Your task to perform on an android device: turn vacation reply on in the gmail app Image 0: 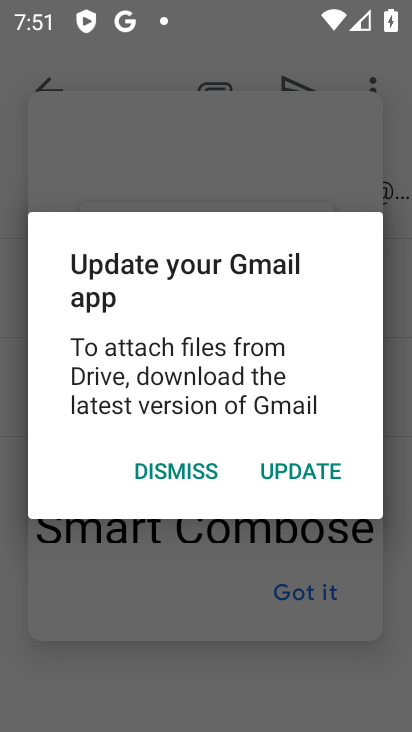
Step 0: press home button
Your task to perform on an android device: turn vacation reply on in the gmail app Image 1: 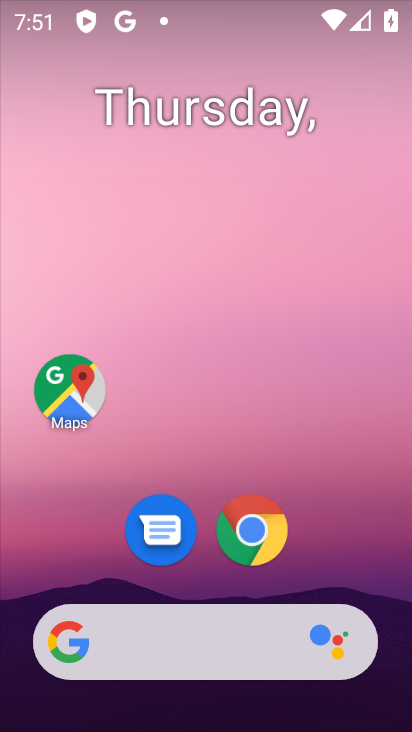
Step 1: drag from (250, 541) to (345, 245)
Your task to perform on an android device: turn vacation reply on in the gmail app Image 2: 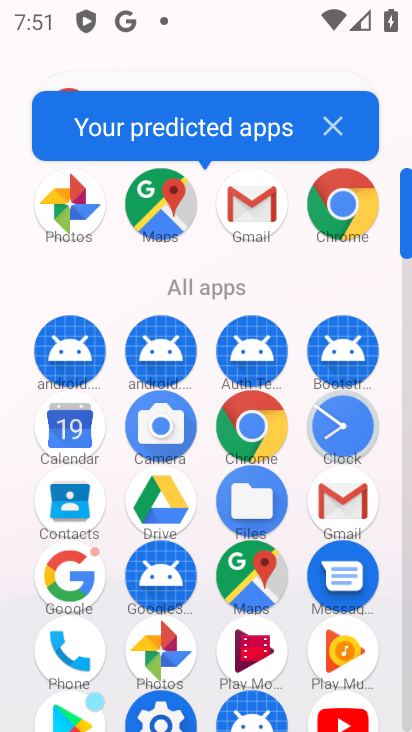
Step 2: click (239, 206)
Your task to perform on an android device: turn vacation reply on in the gmail app Image 3: 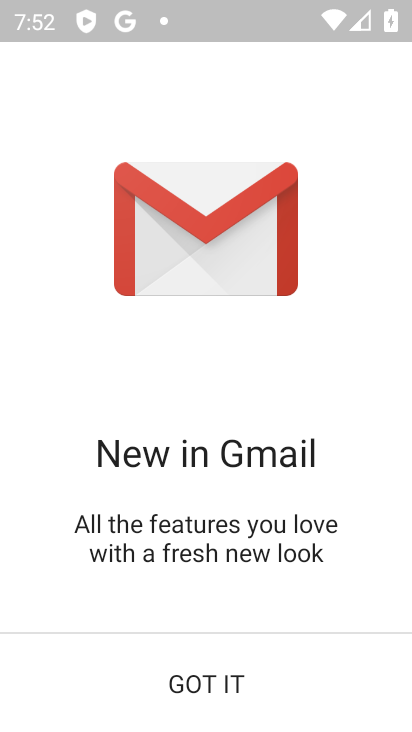
Step 3: click (202, 671)
Your task to perform on an android device: turn vacation reply on in the gmail app Image 4: 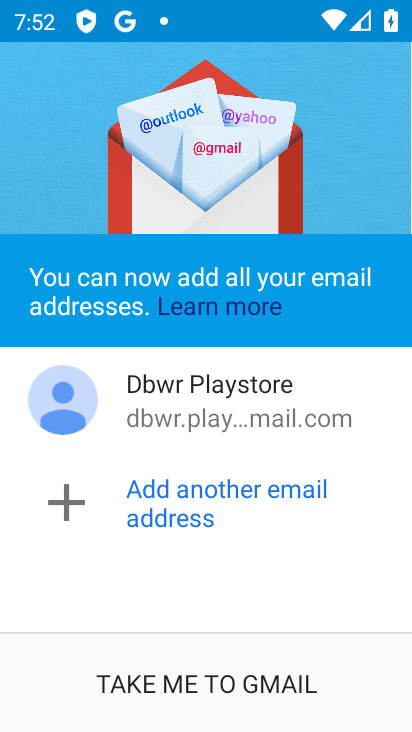
Step 4: click (202, 671)
Your task to perform on an android device: turn vacation reply on in the gmail app Image 5: 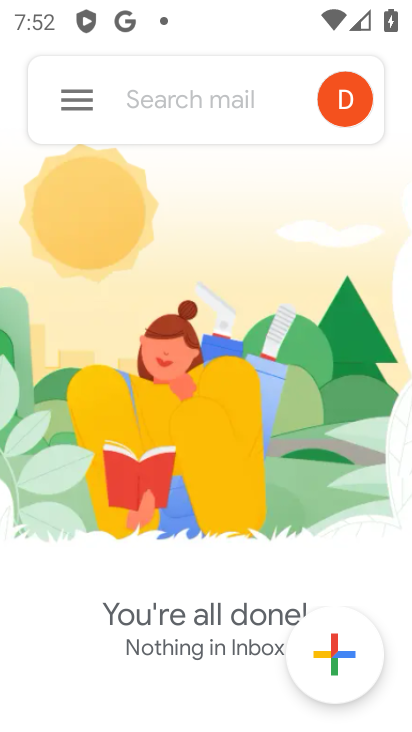
Step 5: click (76, 114)
Your task to perform on an android device: turn vacation reply on in the gmail app Image 6: 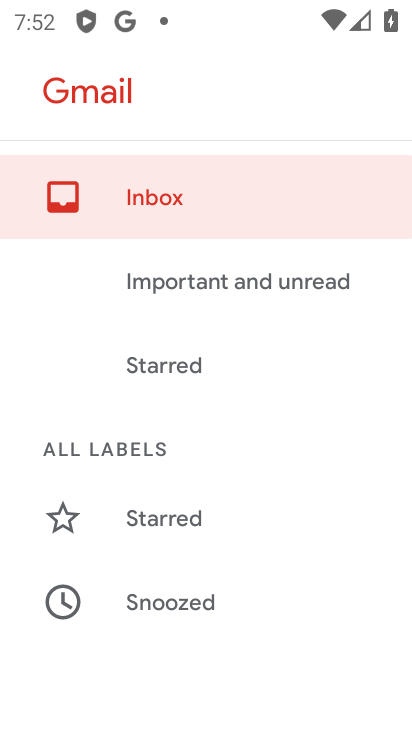
Step 6: drag from (228, 635) to (333, 227)
Your task to perform on an android device: turn vacation reply on in the gmail app Image 7: 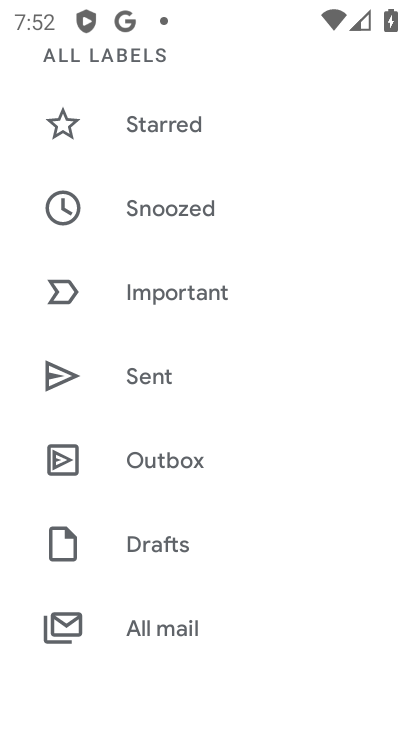
Step 7: drag from (266, 553) to (396, 111)
Your task to perform on an android device: turn vacation reply on in the gmail app Image 8: 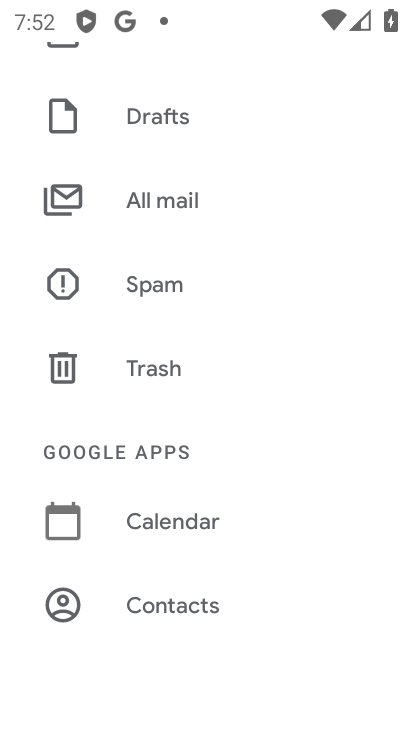
Step 8: drag from (237, 623) to (402, 179)
Your task to perform on an android device: turn vacation reply on in the gmail app Image 9: 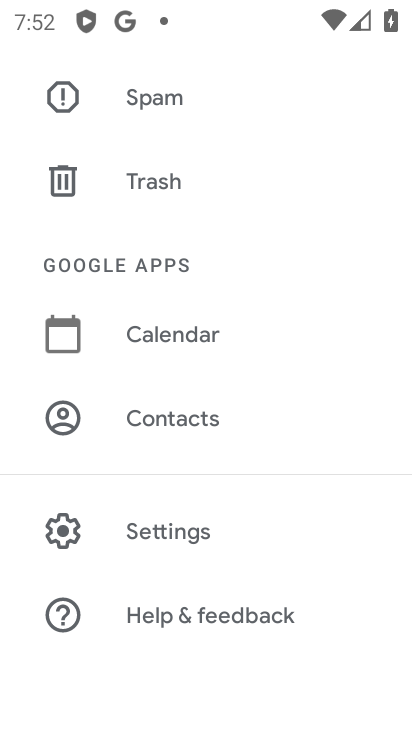
Step 9: click (161, 533)
Your task to perform on an android device: turn vacation reply on in the gmail app Image 10: 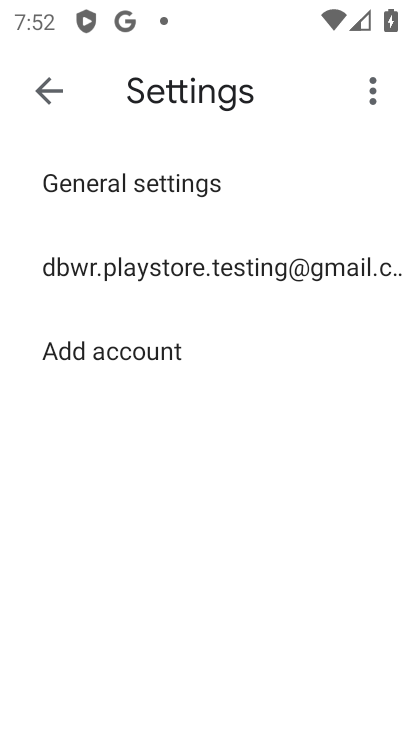
Step 10: click (248, 273)
Your task to perform on an android device: turn vacation reply on in the gmail app Image 11: 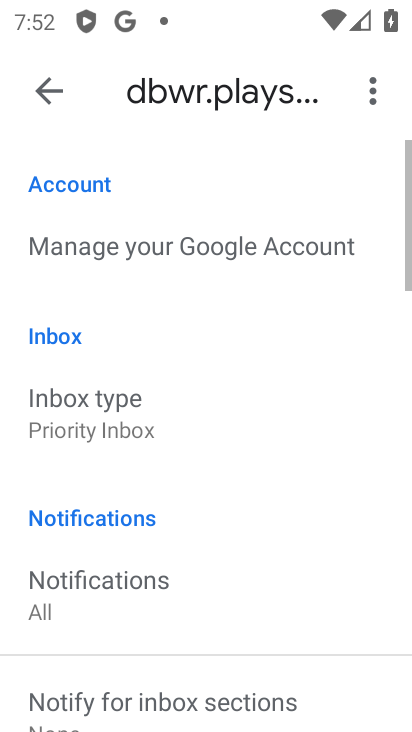
Step 11: drag from (227, 620) to (340, 259)
Your task to perform on an android device: turn vacation reply on in the gmail app Image 12: 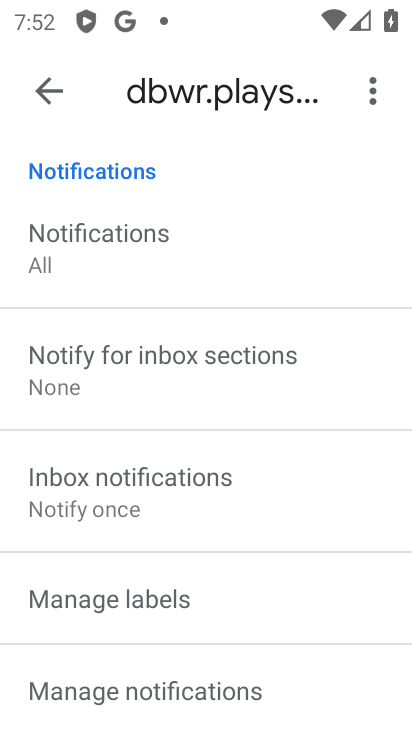
Step 12: drag from (231, 628) to (394, 46)
Your task to perform on an android device: turn vacation reply on in the gmail app Image 13: 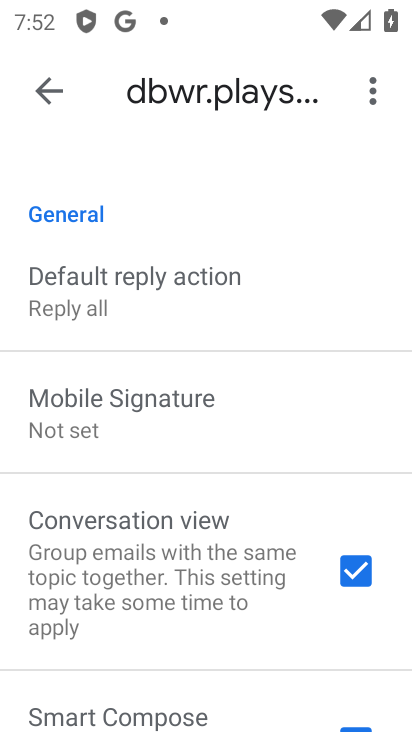
Step 13: drag from (296, 179) to (238, 678)
Your task to perform on an android device: turn vacation reply on in the gmail app Image 14: 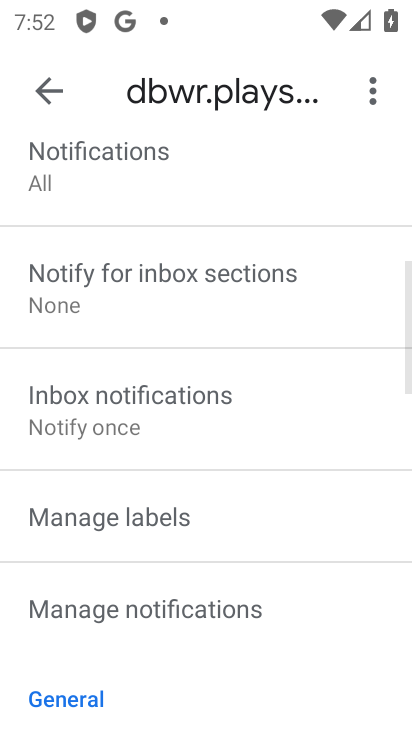
Step 14: drag from (248, 587) to (366, 208)
Your task to perform on an android device: turn vacation reply on in the gmail app Image 15: 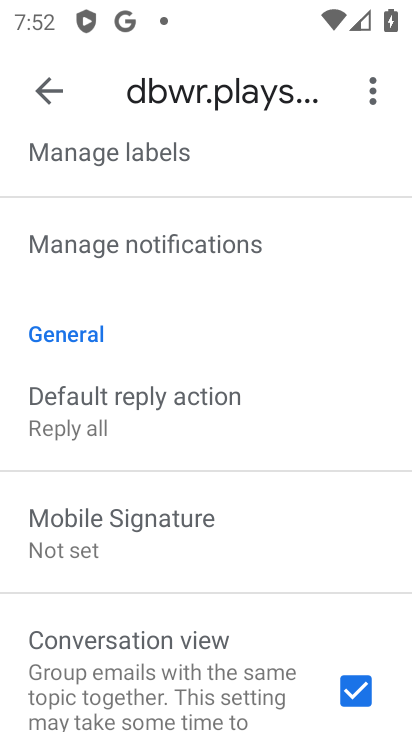
Step 15: drag from (320, 317) to (381, 76)
Your task to perform on an android device: turn vacation reply on in the gmail app Image 16: 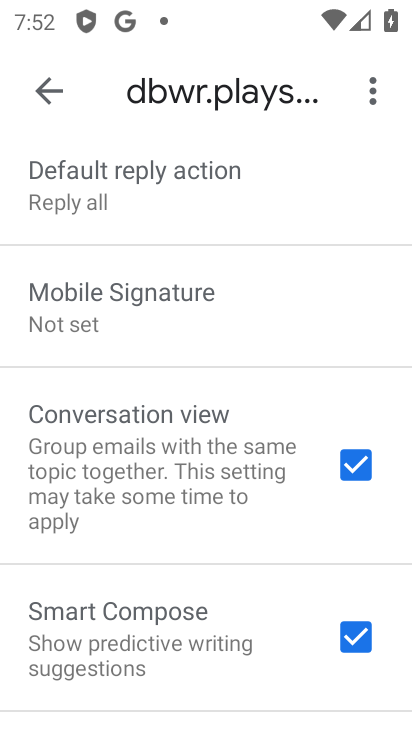
Step 16: drag from (237, 607) to (370, 178)
Your task to perform on an android device: turn vacation reply on in the gmail app Image 17: 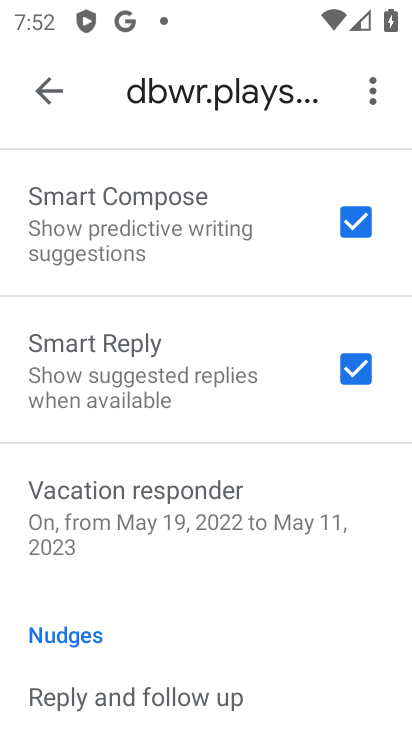
Step 17: click (173, 511)
Your task to perform on an android device: turn vacation reply on in the gmail app Image 18: 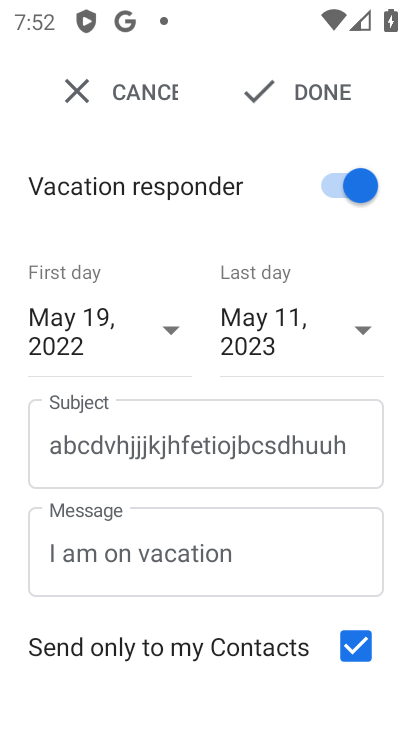
Step 18: task complete